Your task to perform on an android device: Open Google Image 0: 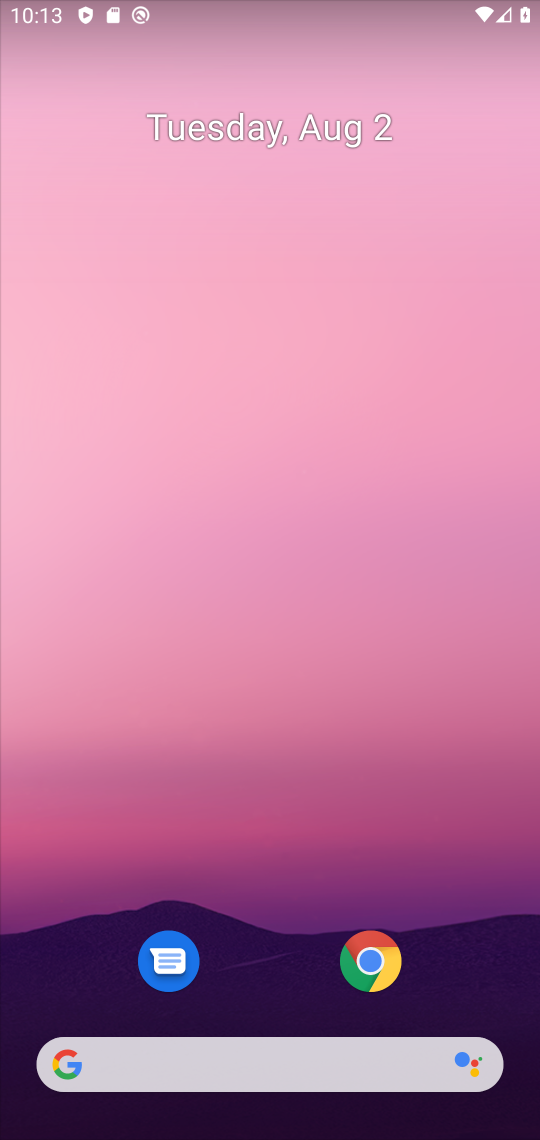
Step 0: drag from (282, 998) to (263, 76)
Your task to perform on an android device: Open Google Image 1: 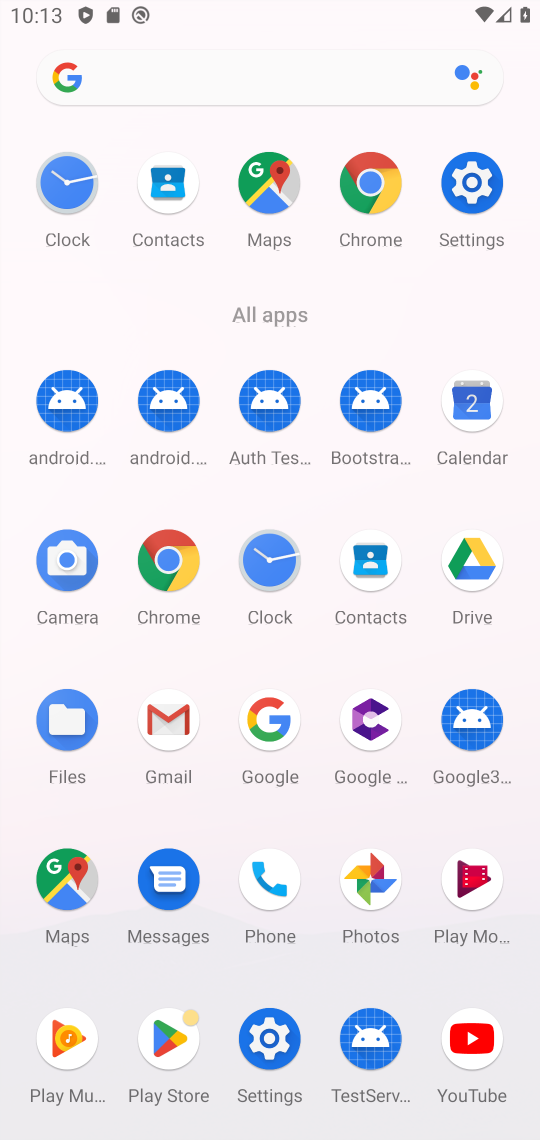
Step 1: click (262, 715)
Your task to perform on an android device: Open Google Image 2: 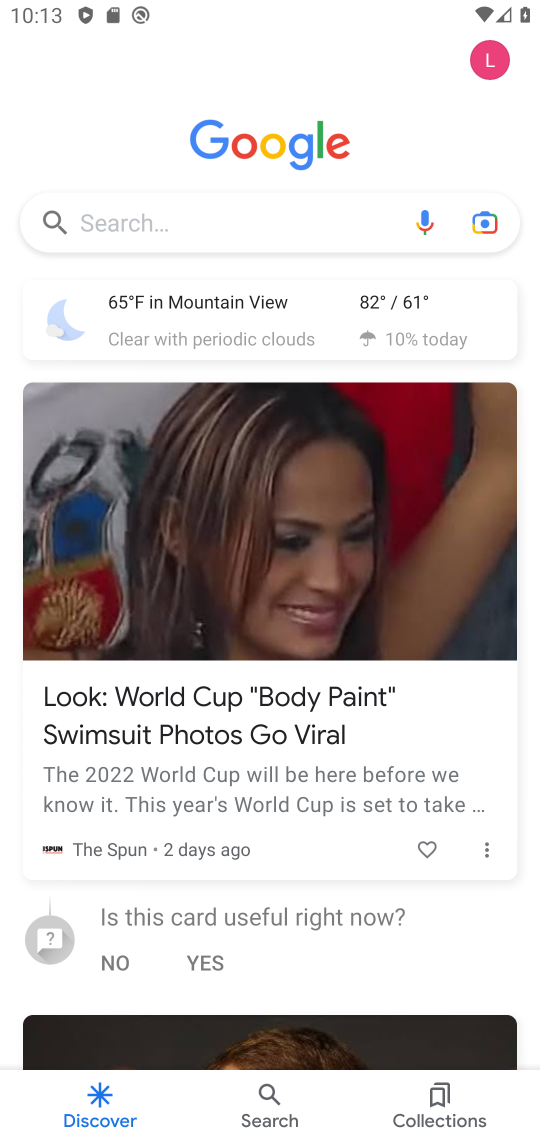
Step 2: task complete